Your task to perform on an android device: Open settings Image 0: 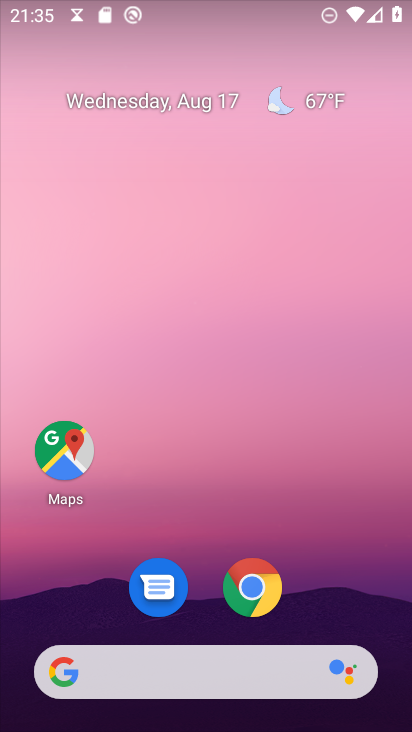
Step 0: drag from (39, 704) to (183, 365)
Your task to perform on an android device: Open settings Image 1: 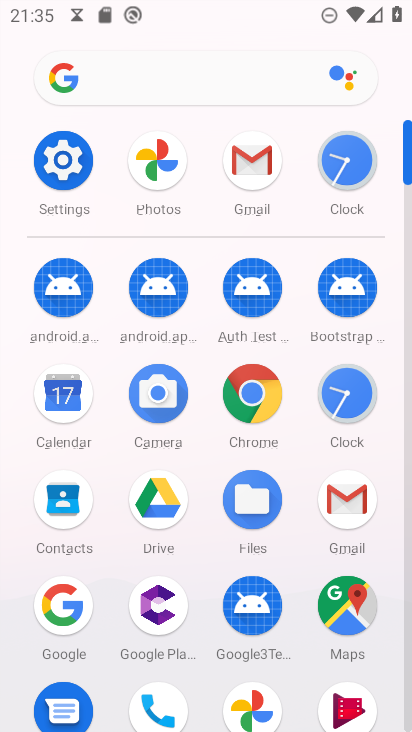
Step 1: click (76, 168)
Your task to perform on an android device: Open settings Image 2: 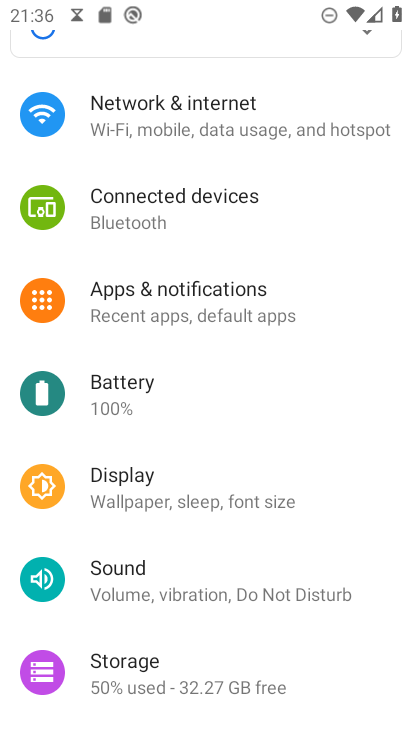
Step 2: task complete